Your task to perform on an android device: turn pop-ups off in chrome Image 0: 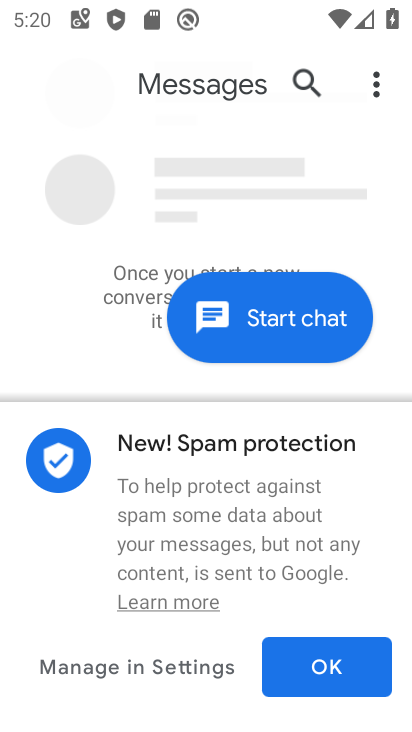
Step 0: press home button
Your task to perform on an android device: turn pop-ups off in chrome Image 1: 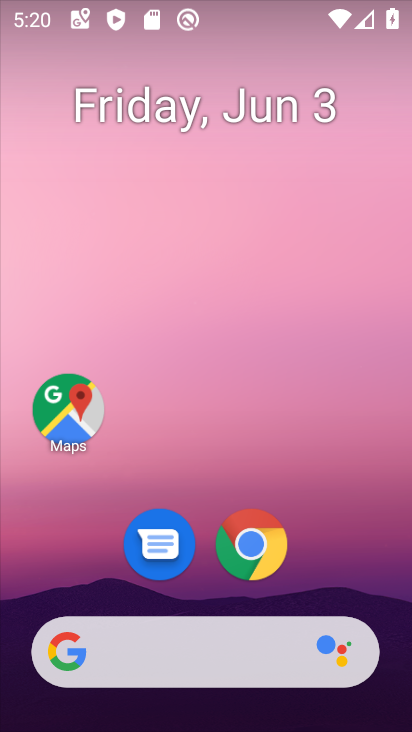
Step 1: drag from (293, 579) to (335, 123)
Your task to perform on an android device: turn pop-ups off in chrome Image 2: 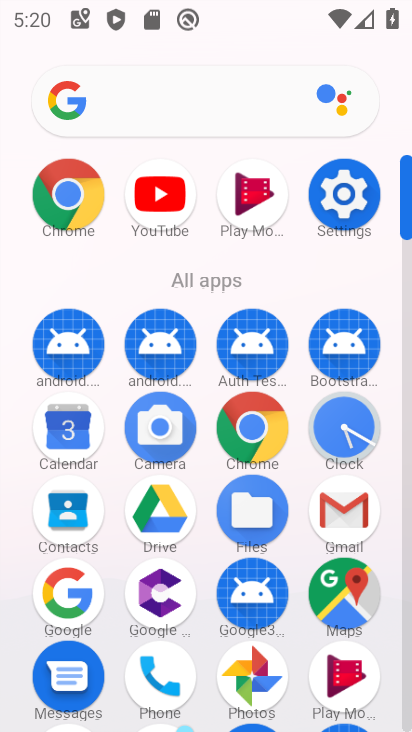
Step 2: click (252, 416)
Your task to perform on an android device: turn pop-ups off in chrome Image 3: 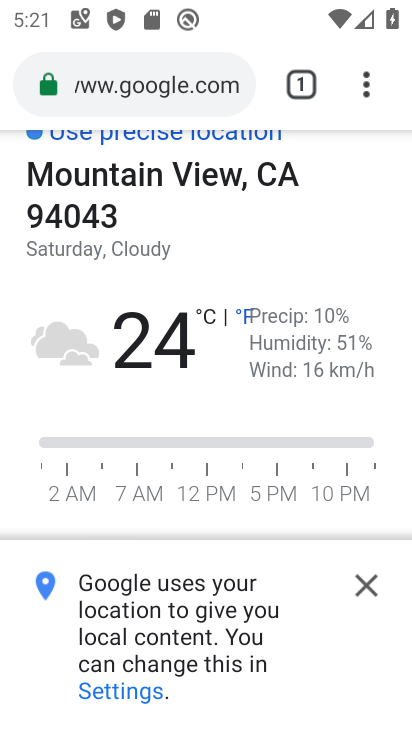
Step 3: drag from (369, 89) to (166, 589)
Your task to perform on an android device: turn pop-ups off in chrome Image 4: 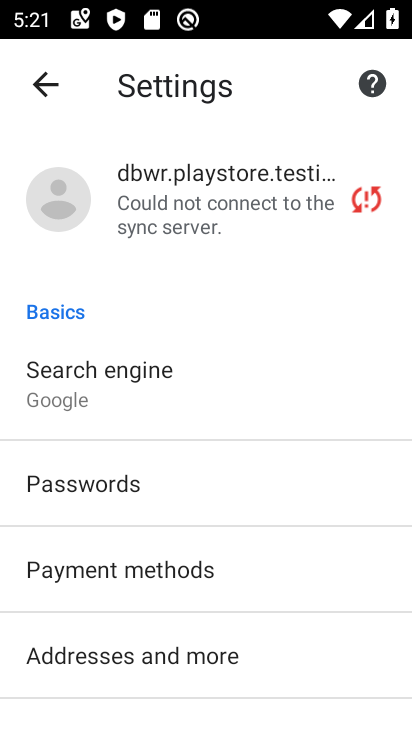
Step 4: drag from (284, 596) to (287, 250)
Your task to perform on an android device: turn pop-ups off in chrome Image 5: 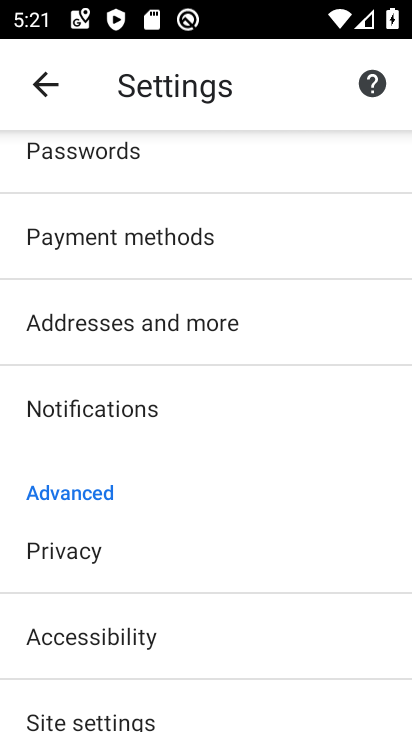
Step 5: drag from (266, 635) to (292, 363)
Your task to perform on an android device: turn pop-ups off in chrome Image 6: 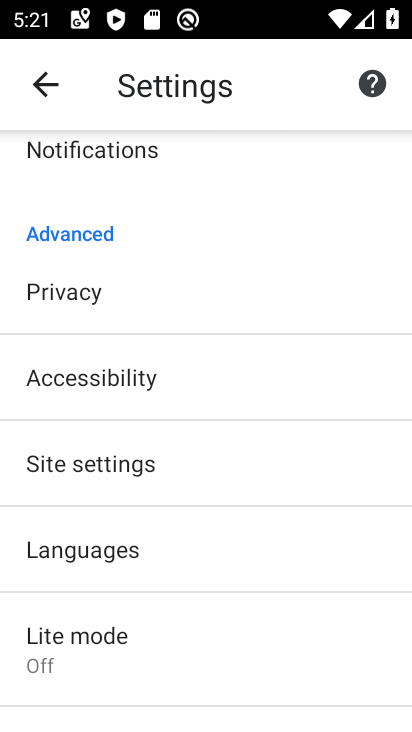
Step 6: click (177, 469)
Your task to perform on an android device: turn pop-ups off in chrome Image 7: 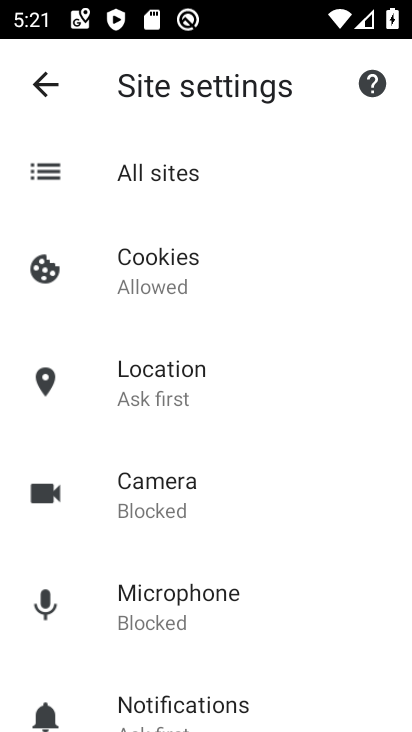
Step 7: drag from (300, 664) to (296, 397)
Your task to perform on an android device: turn pop-ups off in chrome Image 8: 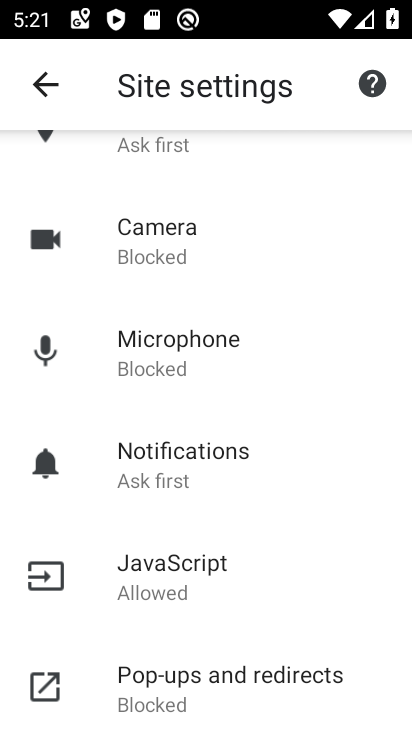
Step 8: click (247, 668)
Your task to perform on an android device: turn pop-ups off in chrome Image 9: 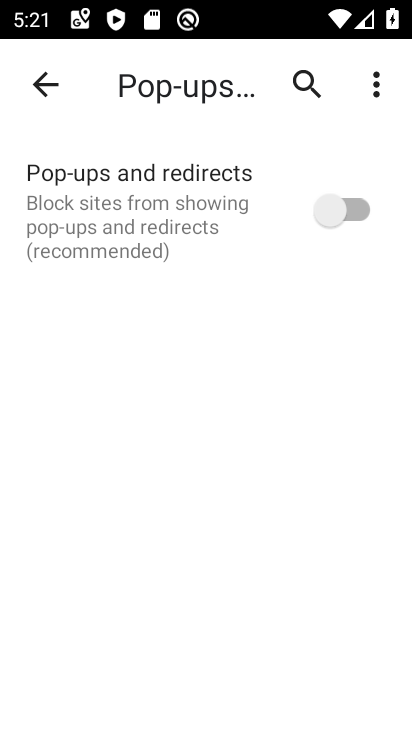
Step 9: task complete